Your task to perform on an android device: toggle data saver in the chrome app Image 0: 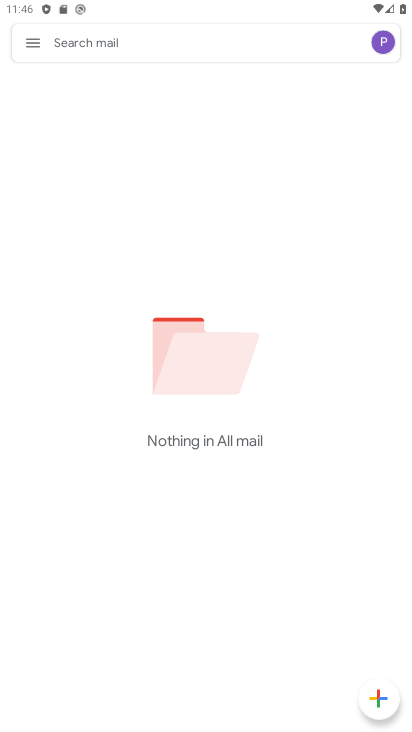
Step 0: press home button
Your task to perform on an android device: toggle data saver in the chrome app Image 1: 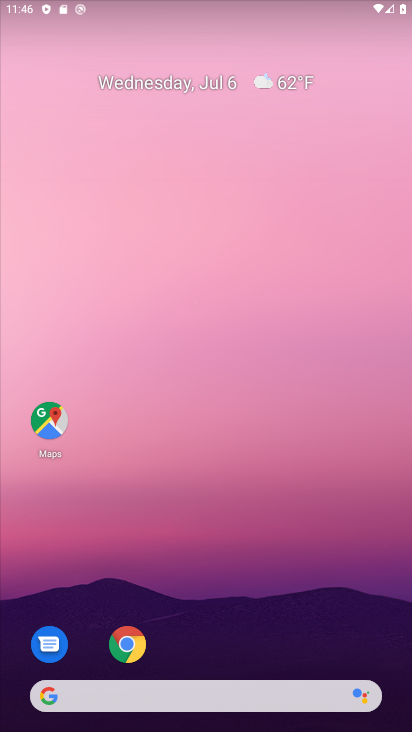
Step 1: drag from (280, 581) to (275, 108)
Your task to perform on an android device: toggle data saver in the chrome app Image 2: 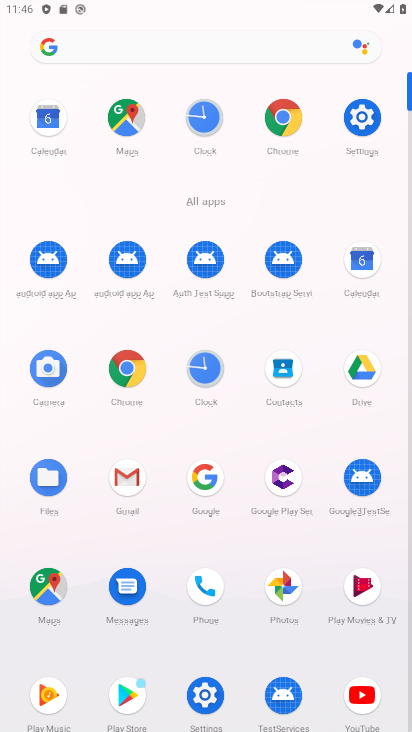
Step 2: click (134, 380)
Your task to perform on an android device: toggle data saver in the chrome app Image 3: 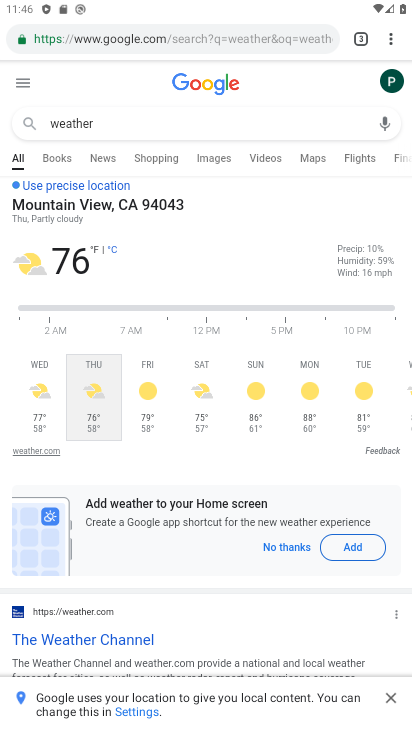
Step 3: click (397, 43)
Your task to perform on an android device: toggle data saver in the chrome app Image 4: 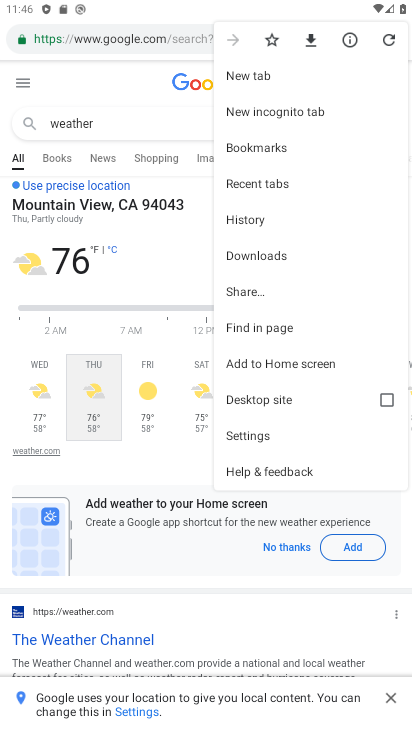
Step 4: click (267, 438)
Your task to perform on an android device: toggle data saver in the chrome app Image 5: 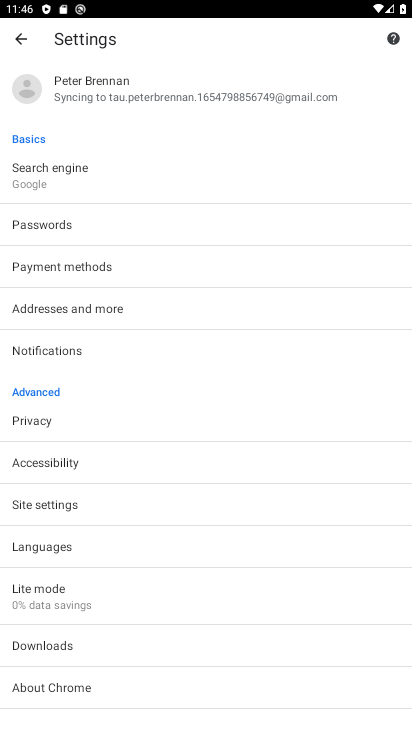
Step 5: click (97, 595)
Your task to perform on an android device: toggle data saver in the chrome app Image 6: 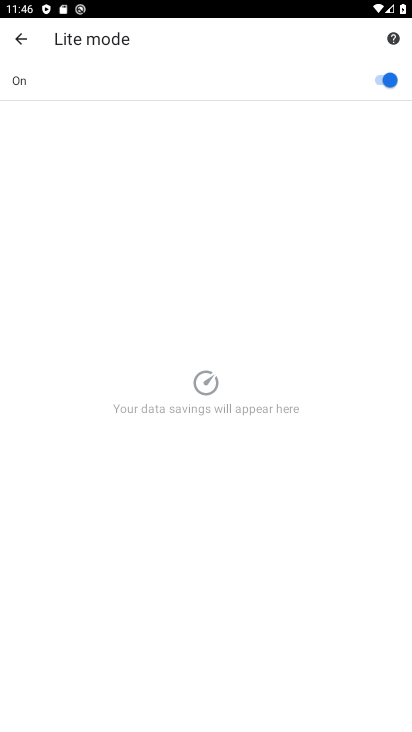
Step 6: click (381, 77)
Your task to perform on an android device: toggle data saver in the chrome app Image 7: 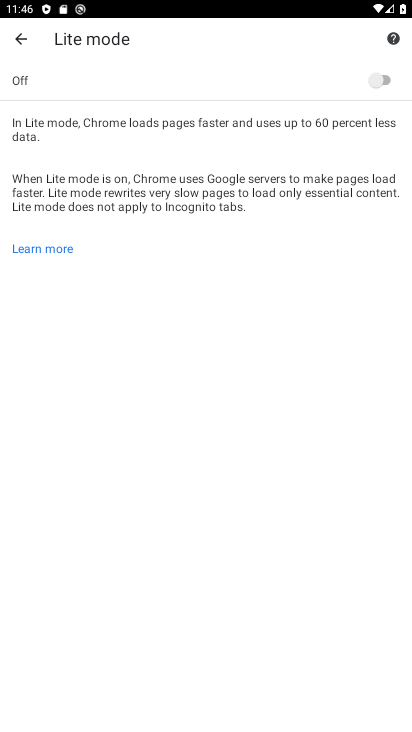
Step 7: task complete